Your task to perform on an android device: all mails in gmail Image 0: 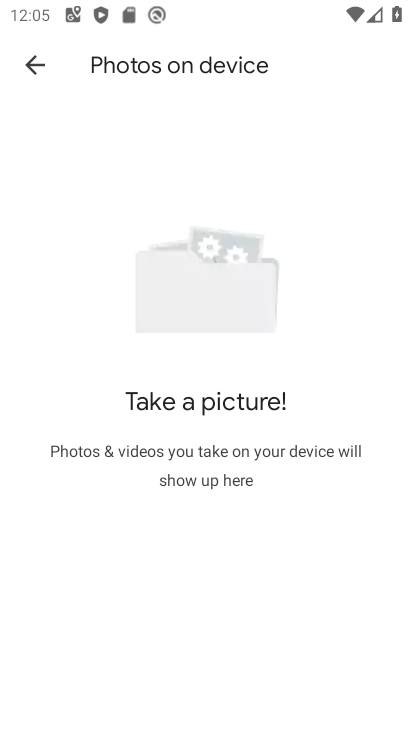
Step 0: press back button
Your task to perform on an android device: all mails in gmail Image 1: 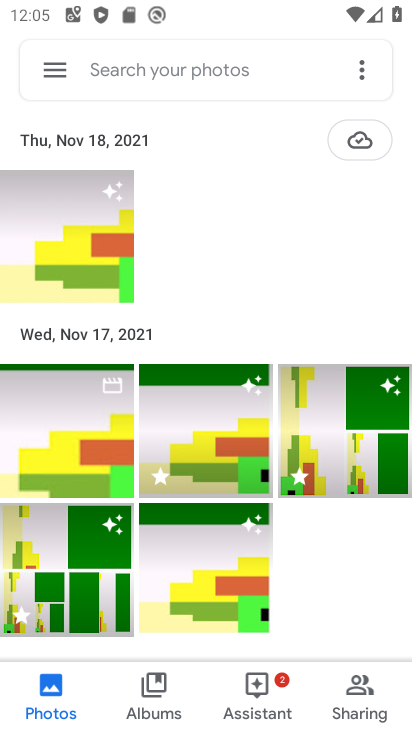
Step 1: press back button
Your task to perform on an android device: all mails in gmail Image 2: 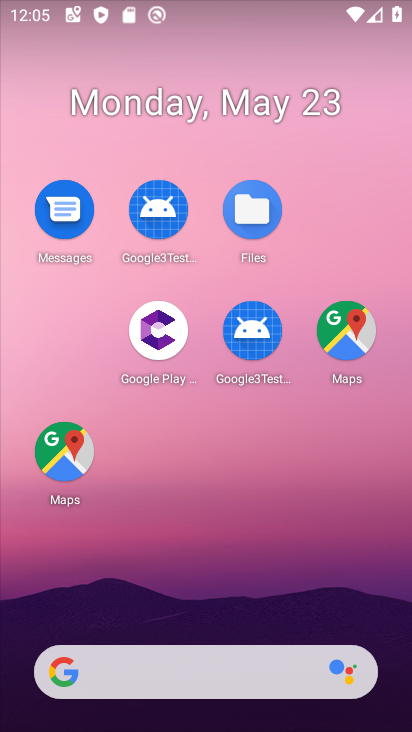
Step 2: drag from (258, 635) to (211, 179)
Your task to perform on an android device: all mails in gmail Image 3: 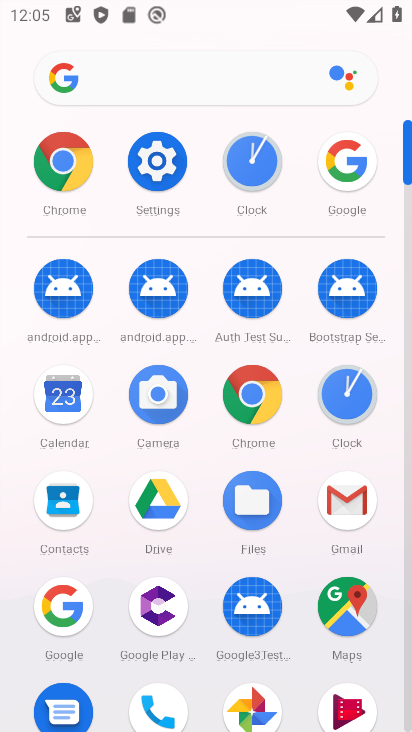
Step 3: click (373, 521)
Your task to perform on an android device: all mails in gmail Image 4: 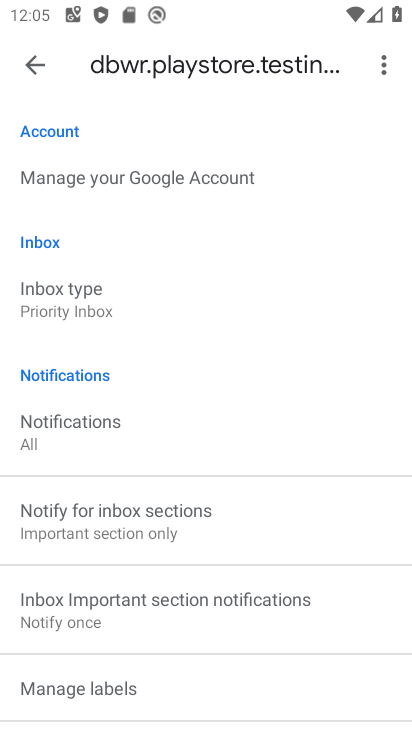
Step 4: click (47, 57)
Your task to perform on an android device: all mails in gmail Image 5: 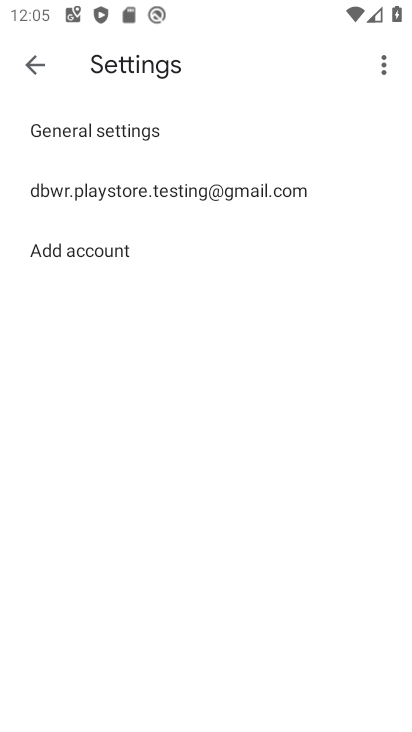
Step 5: click (47, 57)
Your task to perform on an android device: all mails in gmail Image 6: 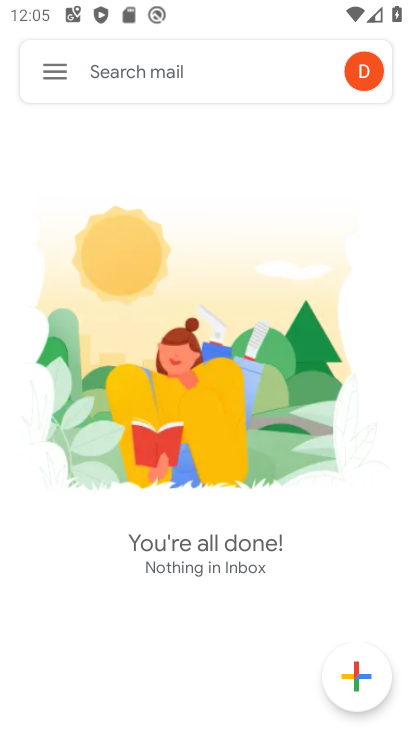
Step 6: click (47, 57)
Your task to perform on an android device: all mails in gmail Image 7: 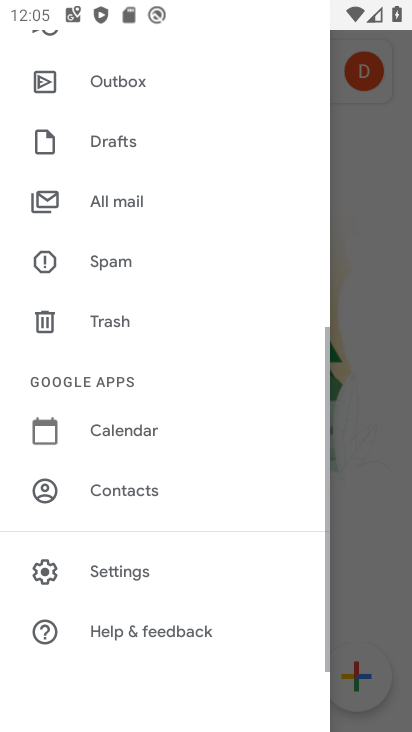
Step 7: click (138, 580)
Your task to perform on an android device: all mails in gmail Image 8: 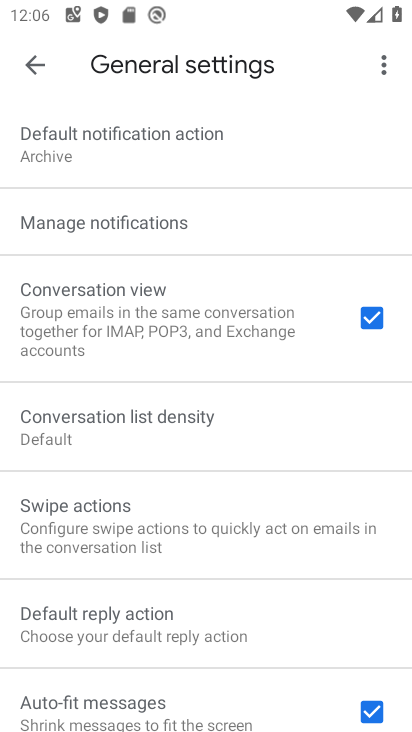
Step 8: task complete